Your task to perform on an android device: Add macbook pro to the cart on costco.com Image 0: 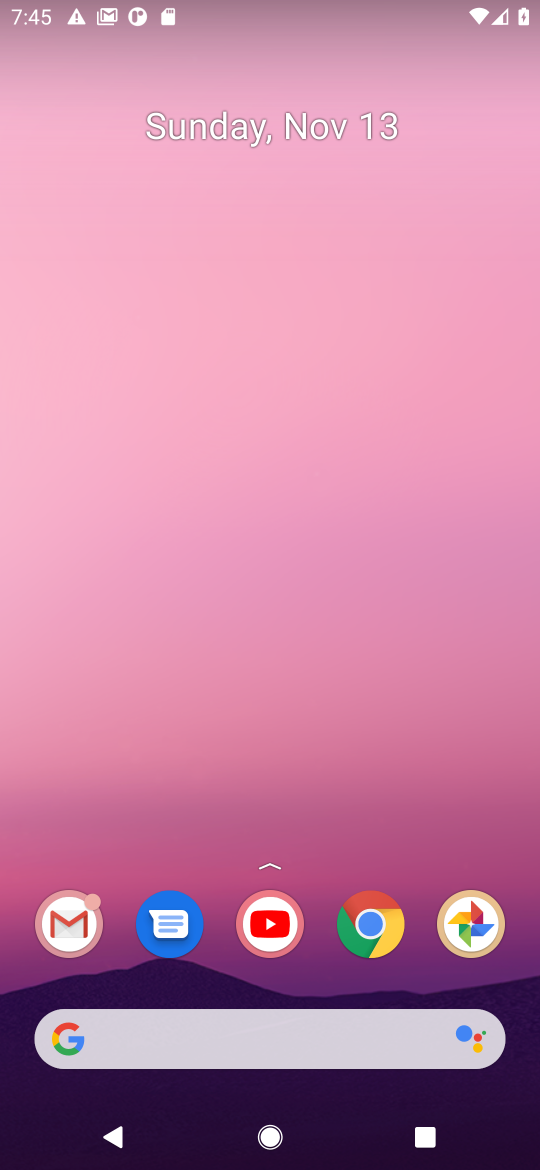
Step 0: click (378, 939)
Your task to perform on an android device: Add macbook pro to the cart on costco.com Image 1: 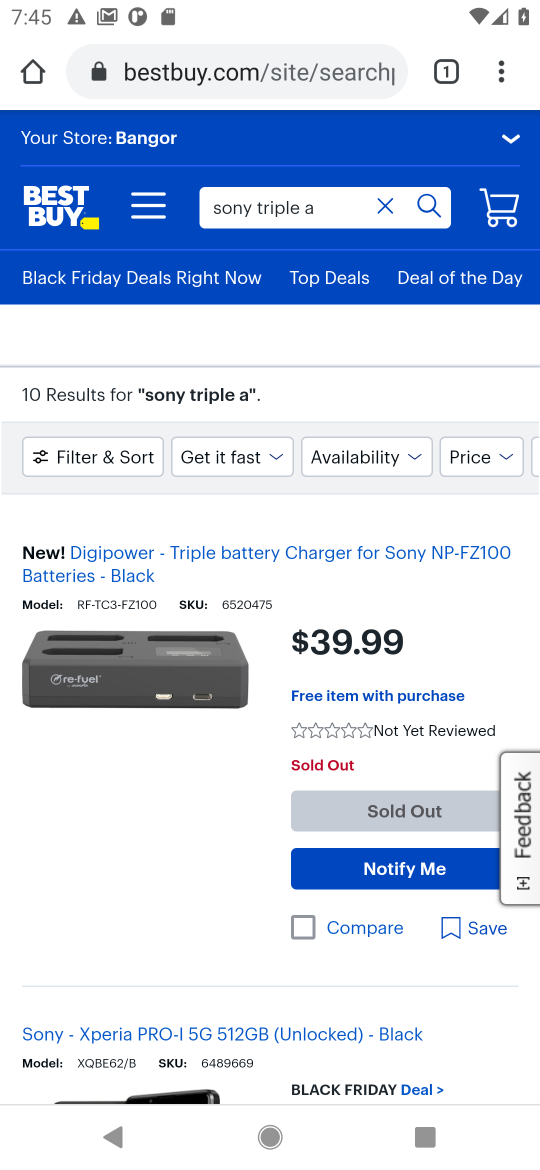
Step 1: click (335, 86)
Your task to perform on an android device: Add macbook pro to the cart on costco.com Image 2: 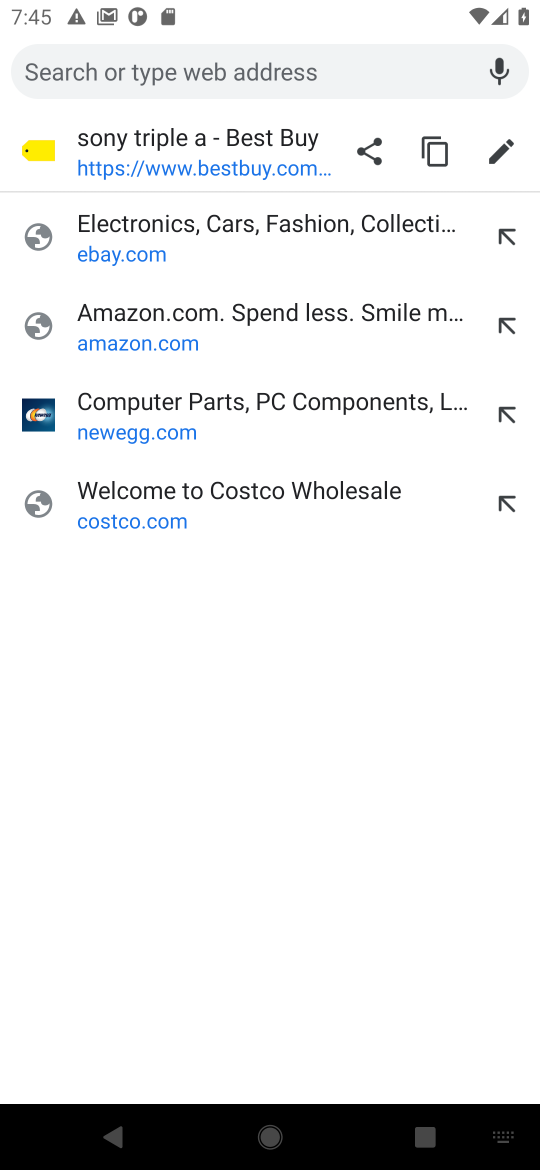
Step 2: click (157, 527)
Your task to perform on an android device: Add macbook pro to the cart on costco.com Image 3: 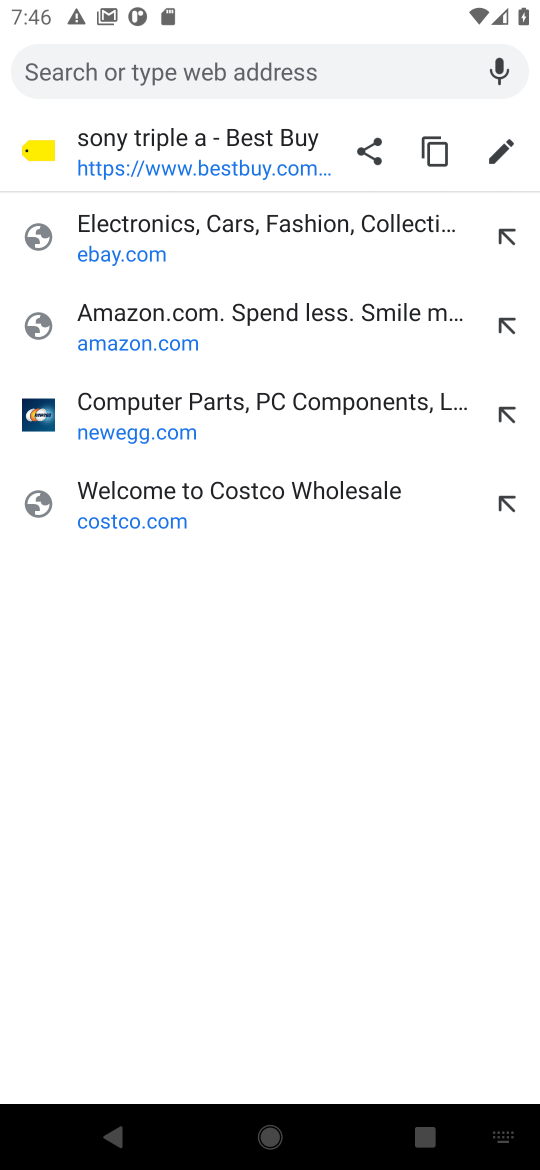
Step 3: click (155, 521)
Your task to perform on an android device: Add macbook pro to the cart on costco.com Image 4: 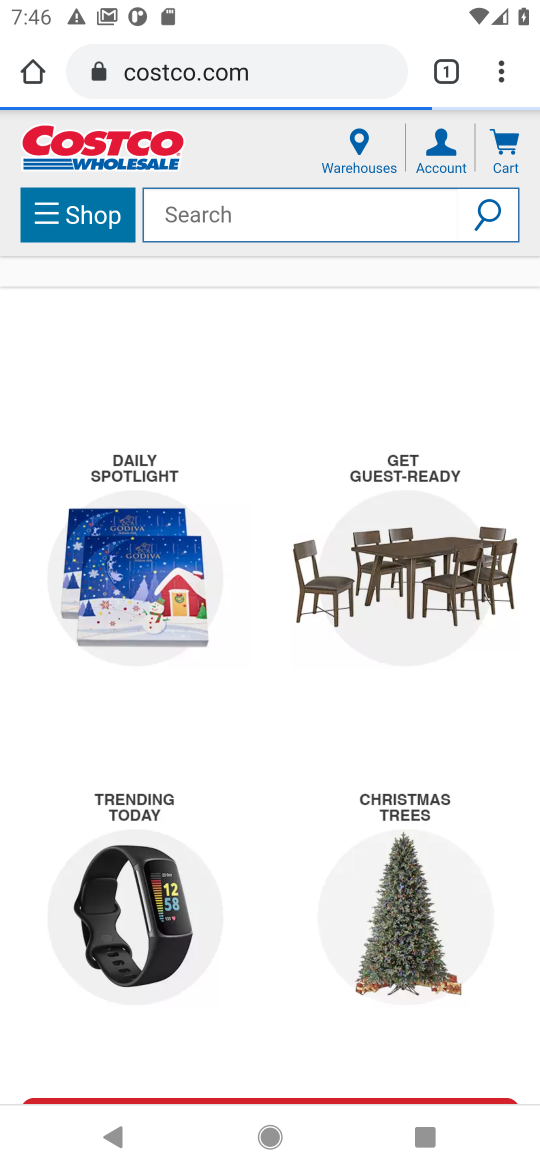
Step 4: click (310, 225)
Your task to perform on an android device: Add macbook pro to the cart on costco.com Image 5: 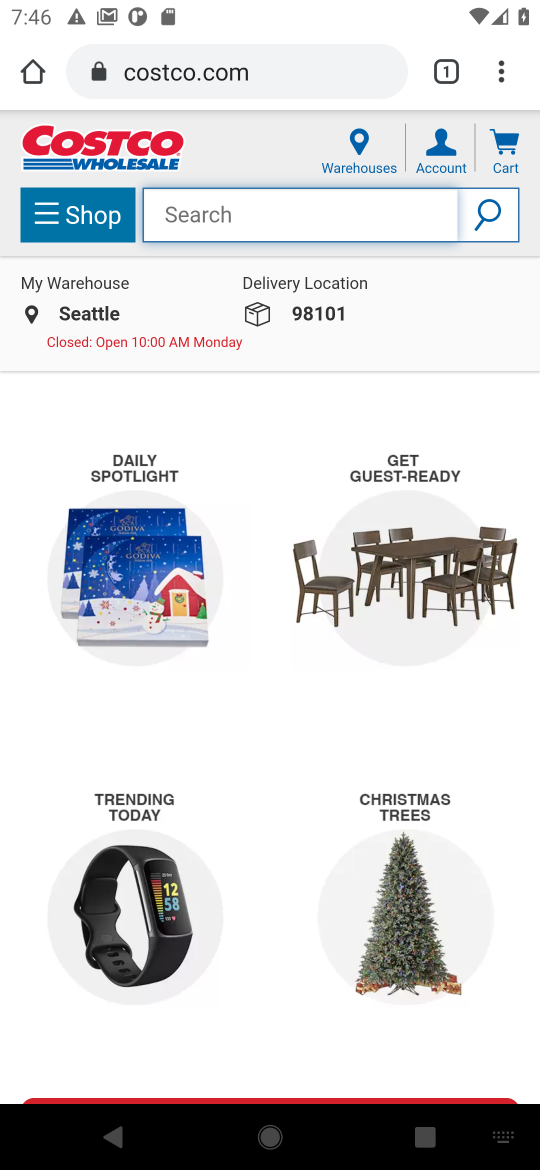
Step 5: type "mackbook pro"
Your task to perform on an android device: Add macbook pro to the cart on costco.com Image 6: 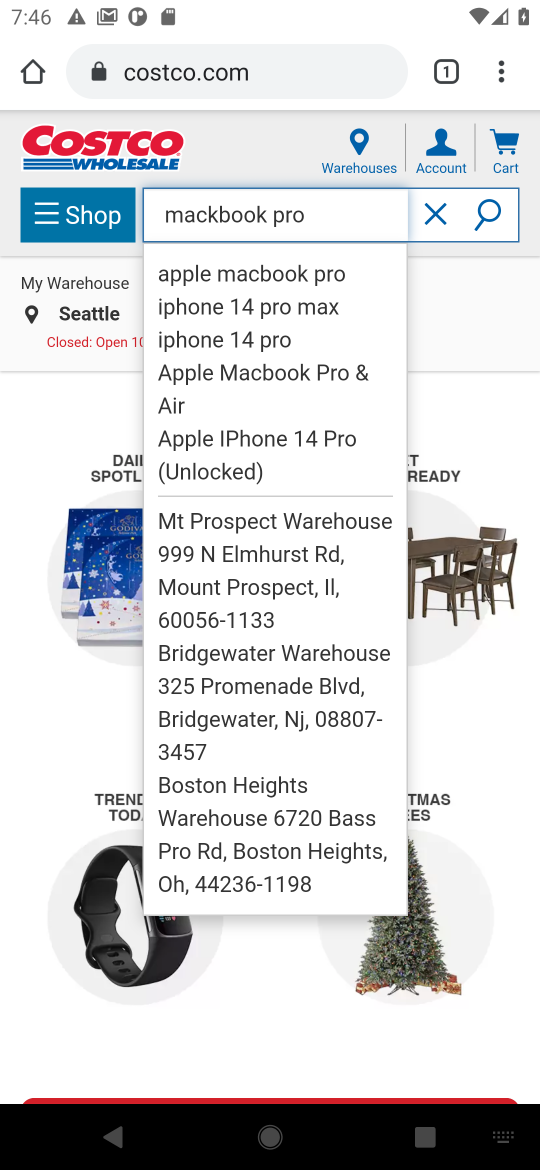
Step 6: click (311, 286)
Your task to perform on an android device: Add macbook pro to the cart on costco.com Image 7: 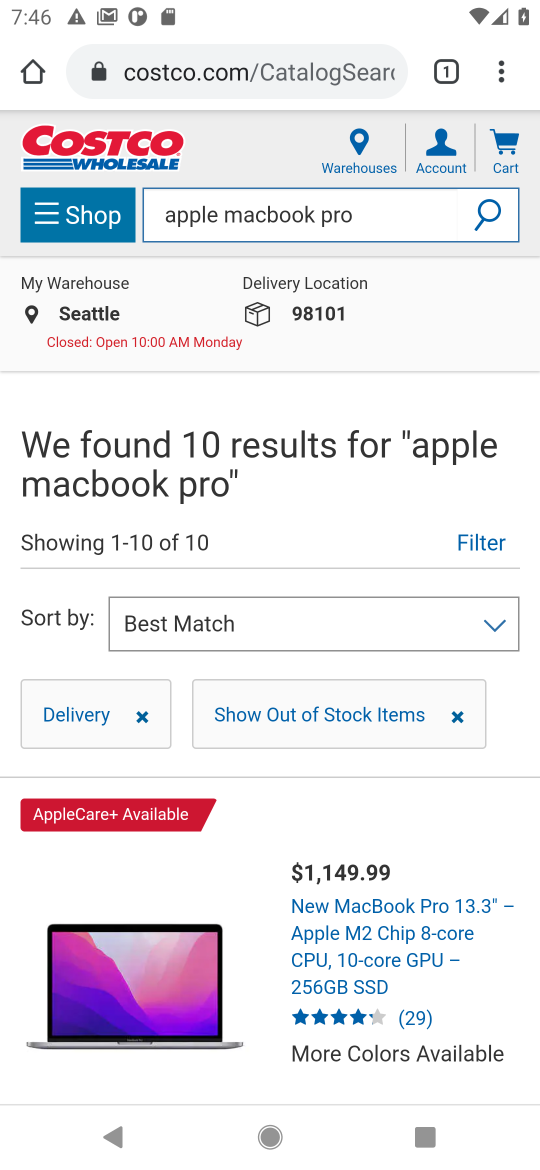
Step 7: click (154, 1007)
Your task to perform on an android device: Add macbook pro to the cart on costco.com Image 8: 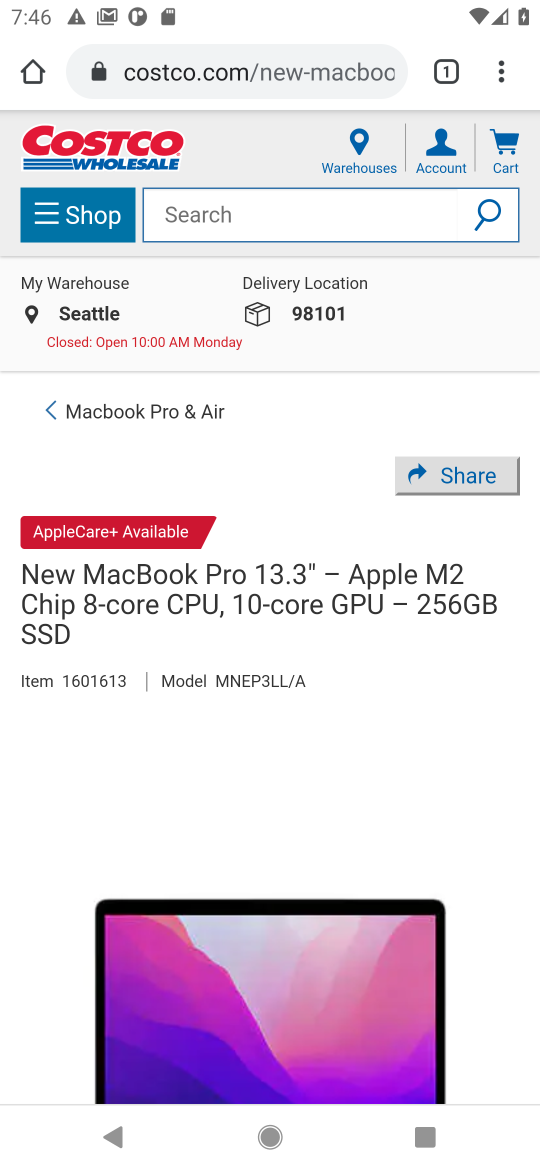
Step 8: drag from (462, 1013) to (475, 24)
Your task to perform on an android device: Add macbook pro to the cart on costco.com Image 9: 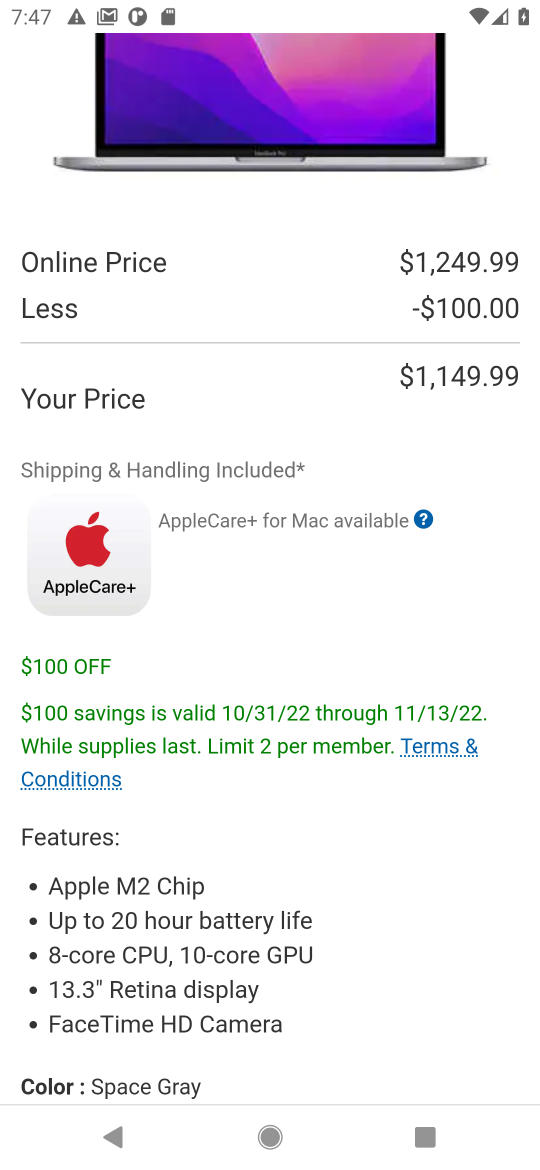
Step 9: drag from (361, 907) to (322, 347)
Your task to perform on an android device: Add macbook pro to the cart on costco.com Image 10: 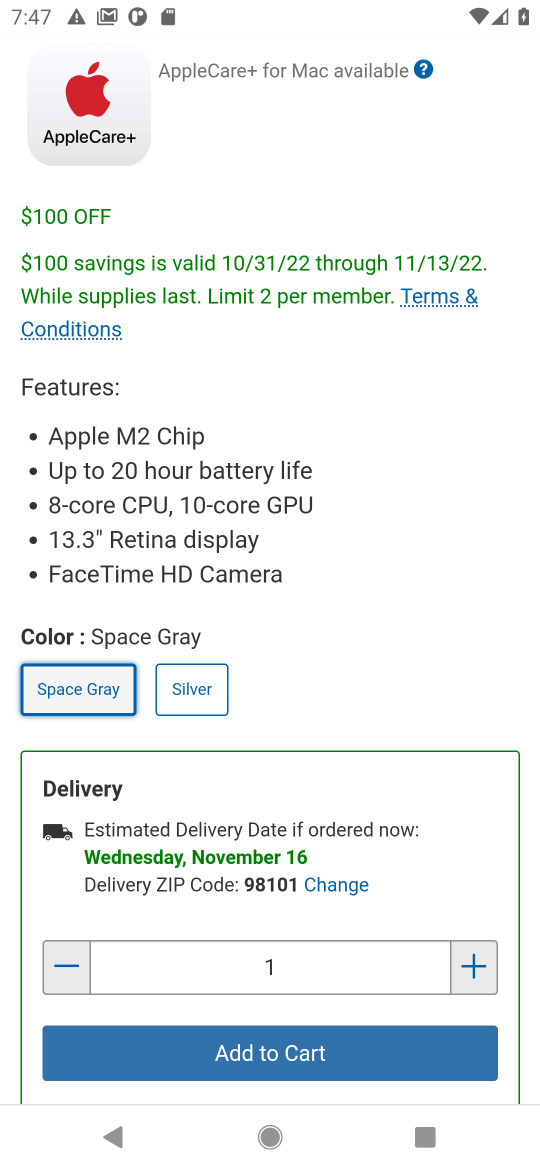
Step 10: click (275, 1058)
Your task to perform on an android device: Add macbook pro to the cart on costco.com Image 11: 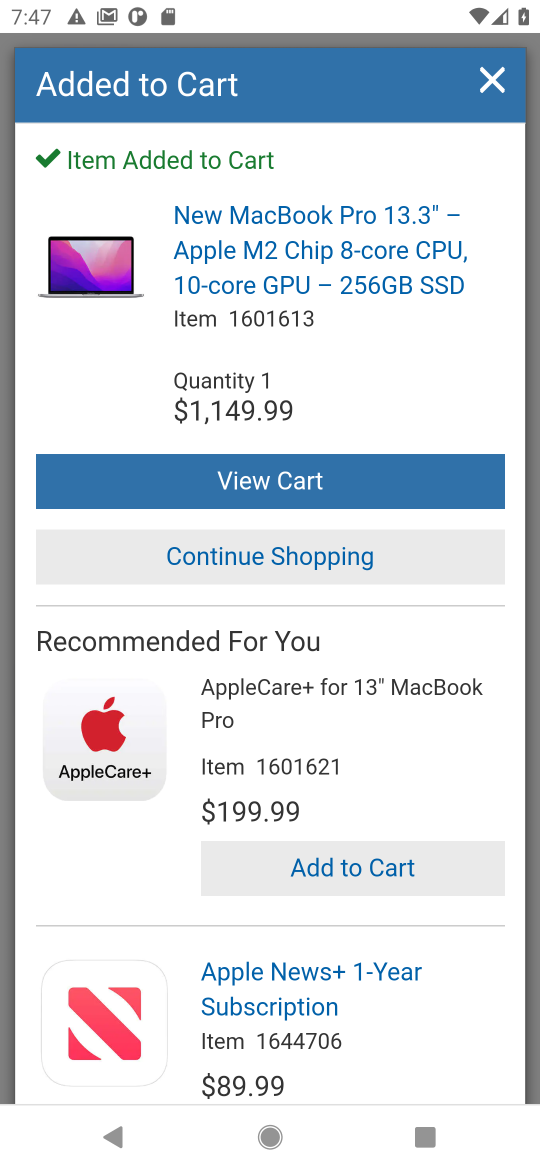
Step 11: task complete